Your task to perform on an android device: Search for sushi restaurants on Maps Image 0: 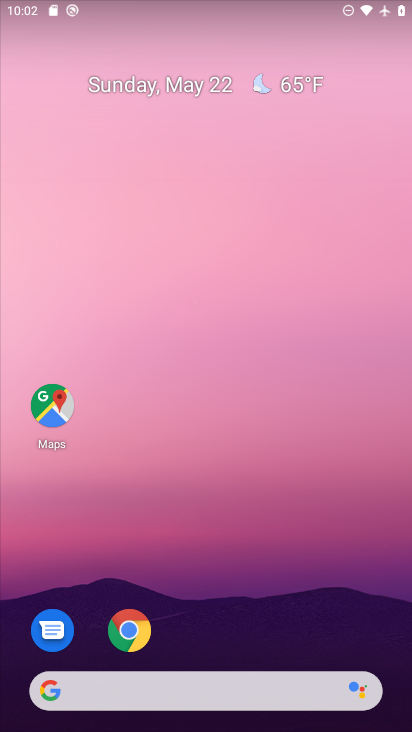
Step 0: press home button
Your task to perform on an android device: Search for sushi restaurants on Maps Image 1: 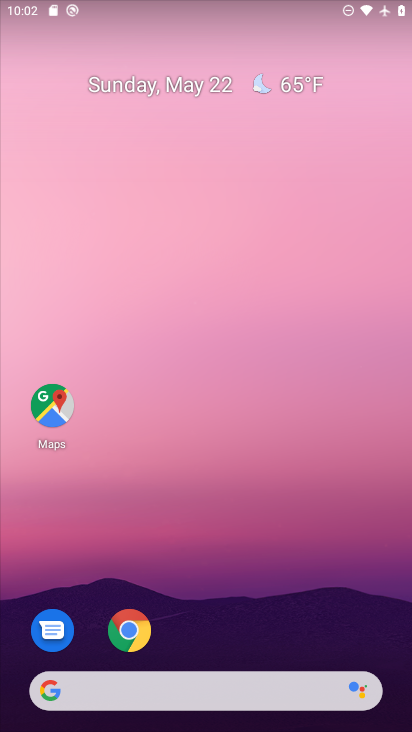
Step 1: click (46, 398)
Your task to perform on an android device: Search for sushi restaurants on Maps Image 2: 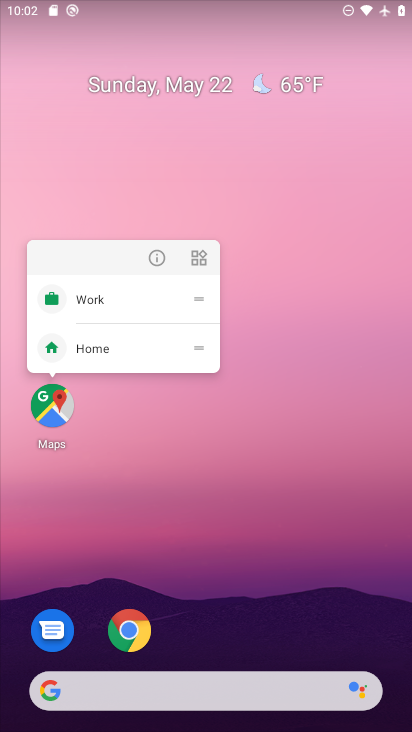
Step 2: click (56, 409)
Your task to perform on an android device: Search for sushi restaurants on Maps Image 3: 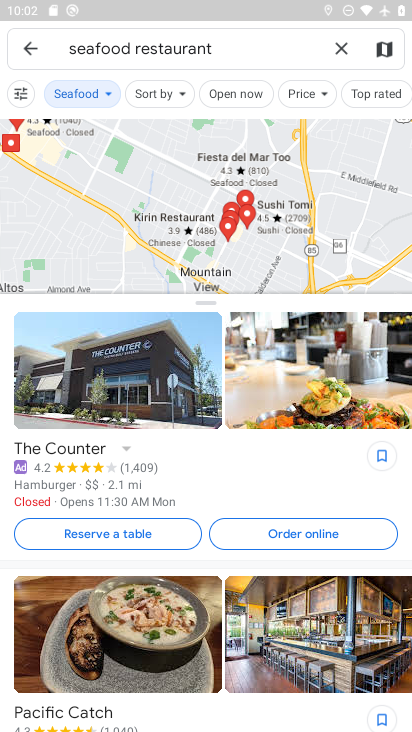
Step 3: click (342, 52)
Your task to perform on an android device: Search for sushi restaurants on Maps Image 4: 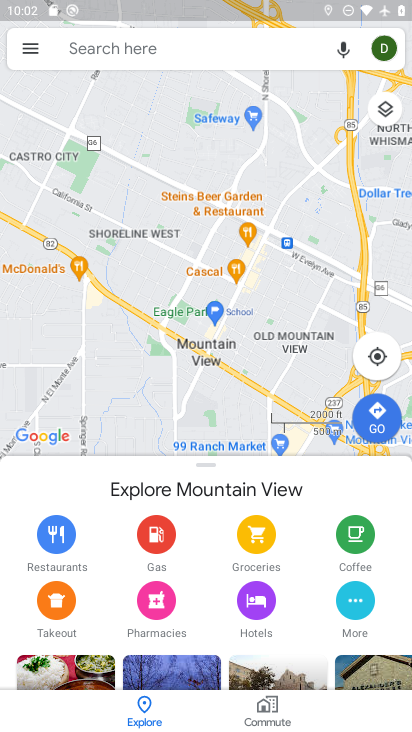
Step 4: click (218, 41)
Your task to perform on an android device: Search for sushi restaurants on Maps Image 5: 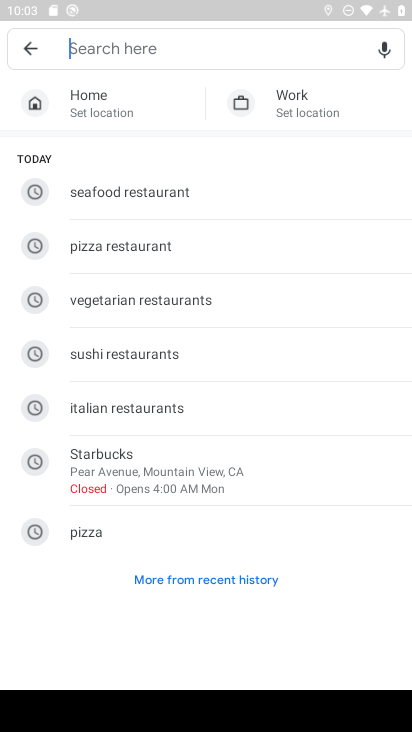
Step 5: click (144, 357)
Your task to perform on an android device: Search for sushi restaurants on Maps Image 6: 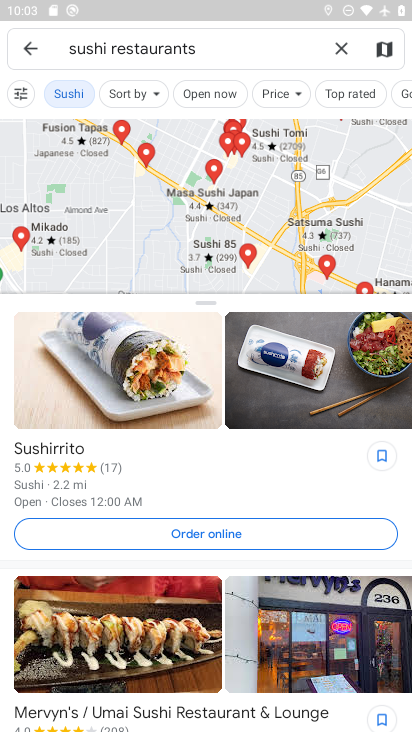
Step 6: task complete